Your task to perform on an android device: Open Google Maps and go to "Timeline" Image 0: 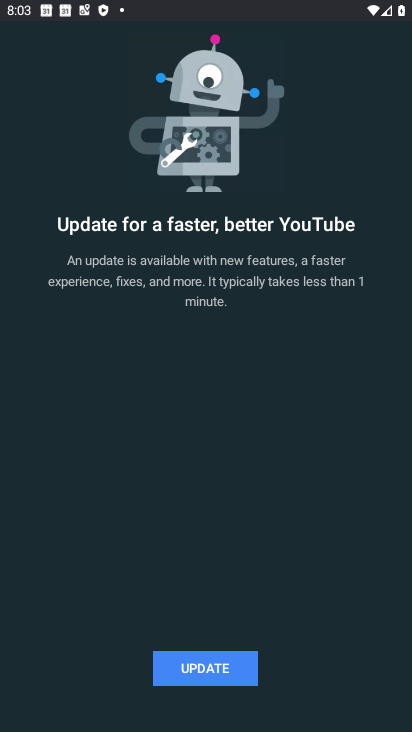
Step 0: press back button
Your task to perform on an android device: Open Google Maps and go to "Timeline" Image 1: 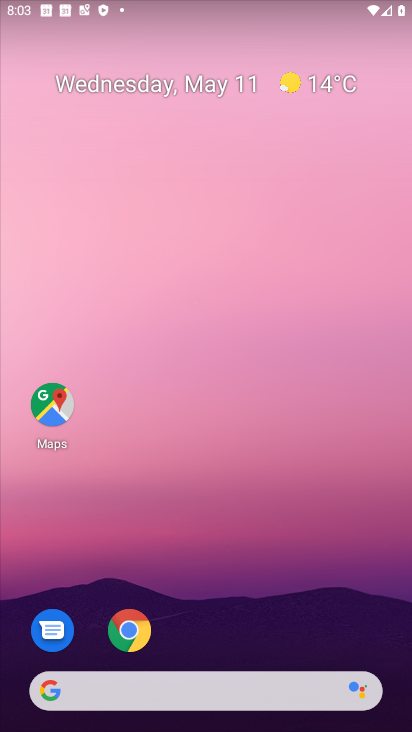
Step 1: click (57, 408)
Your task to perform on an android device: Open Google Maps and go to "Timeline" Image 2: 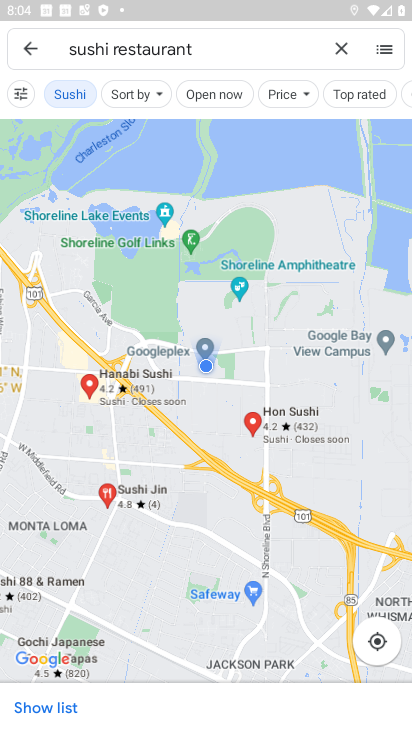
Step 2: click (29, 55)
Your task to perform on an android device: Open Google Maps and go to "Timeline" Image 3: 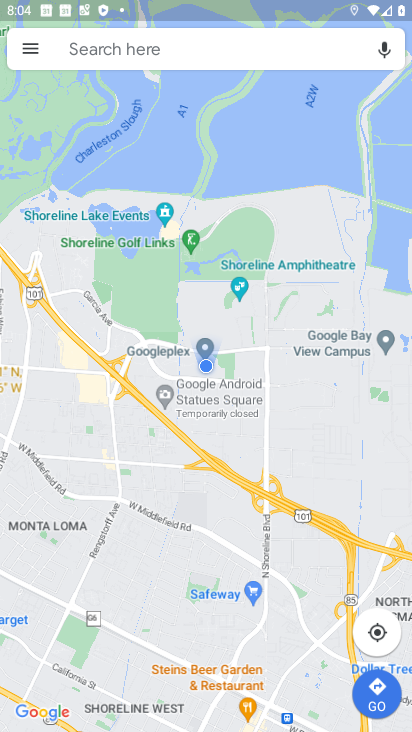
Step 3: click (29, 55)
Your task to perform on an android device: Open Google Maps and go to "Timeline" Image 4: 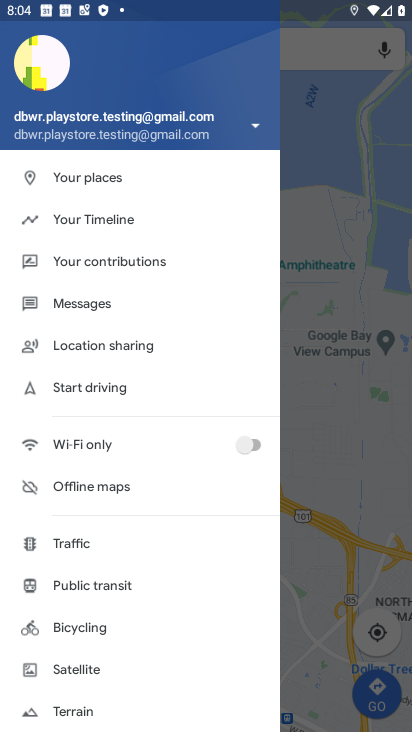
Step 4: click (62, 216)
Your task to perform on an android device: Open Google Maps and go to "Timeline" Image 5: 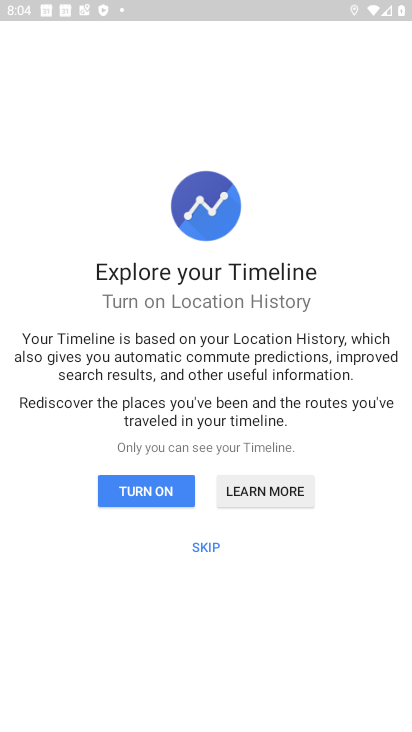
Step 5: click (62, 216)
Your task to perform on an android device: Open Google Maps and go to "Timeline" Image 6: 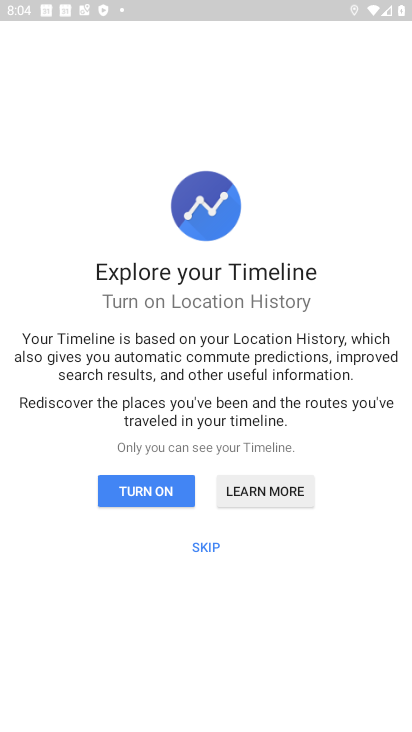
Step 6: click (196, 539)
Your task to perform on an android device: Open Google Maps and go to "Timeline" Image 7: 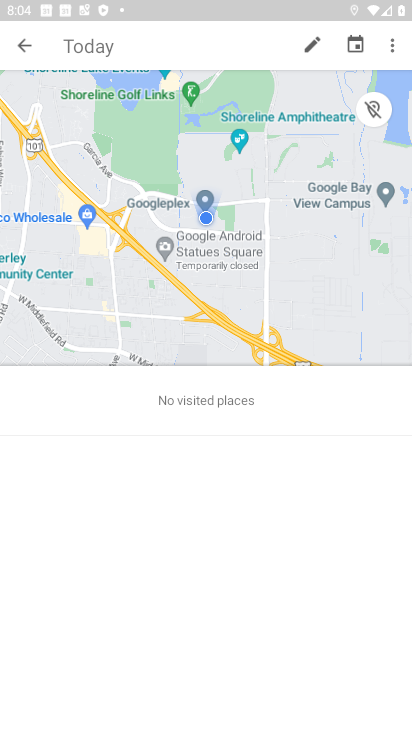
Step 7: task complete